Your task to perform on an android device: Open Chrome and go to the settings page Image 0: 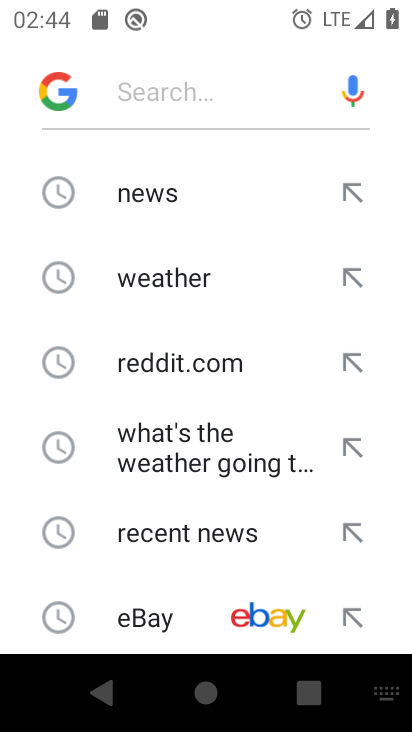
Step 0: press home button
Your task to perform on an android device: Open Chrome and go to the settings page Image 1: 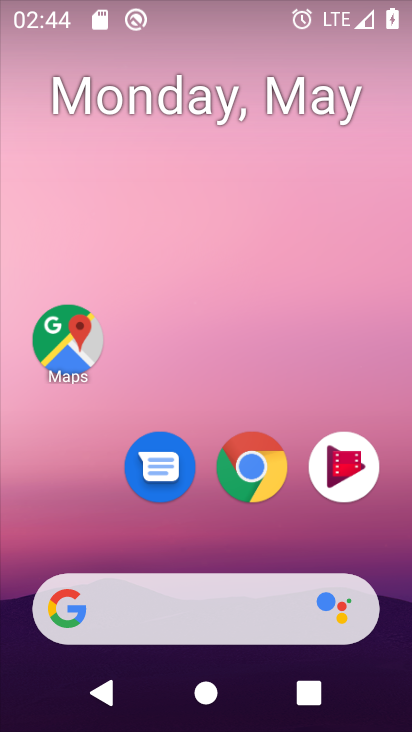
Step 1: drag from (217, 556) to (294, 142)
Your task to perform on an android device: Open Chrome and go to the settings page Image 2: 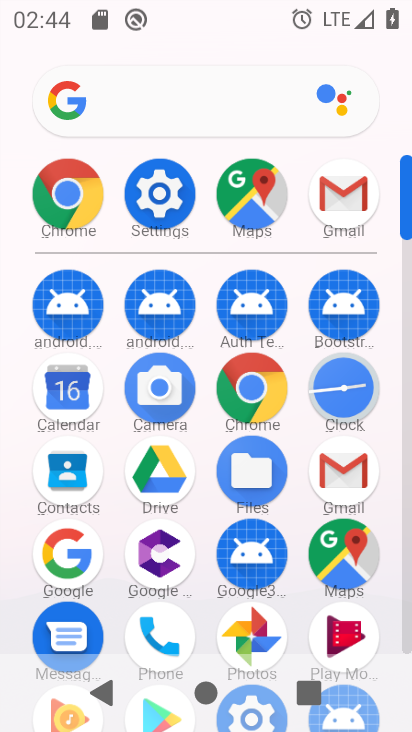
Step 2: click (68, 187)
Your task to perform on an android device: Open Chrome and go to the settings page Image 3: 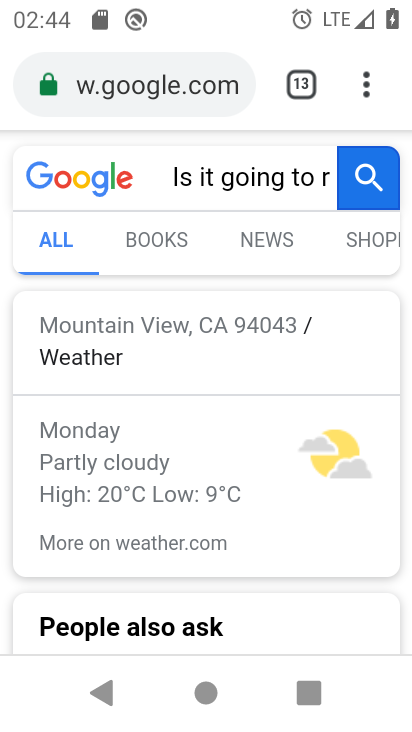
Step 3: click (361, 72)
Your task to perform on an android device: Open Chrome and go to the settings page Image 4: 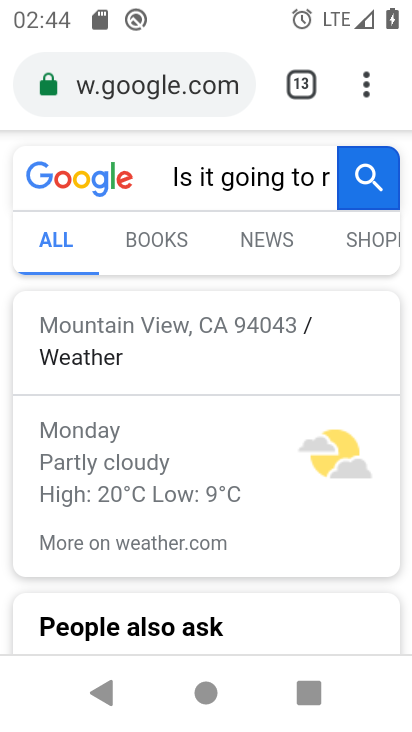
Step 4: click (348, 69)
Your task to perform on an android device: Open Chrome and go to the settings page Image 5: 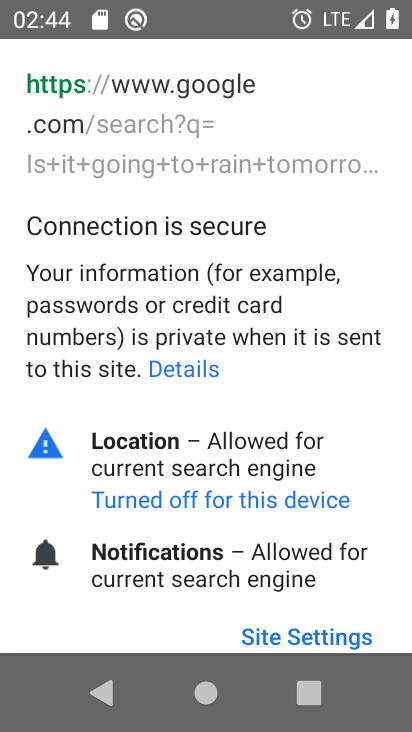
Step 5: press back button
Your task to perform on an android device: Open Chrome and go to the settings page Image 6: 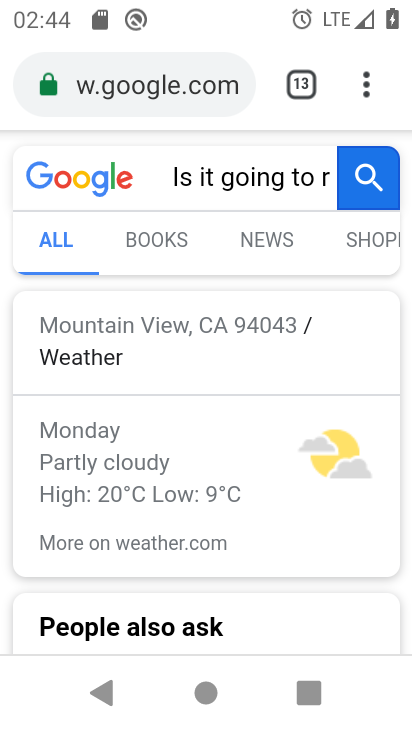
Step 6: click (401, 66)
Your task to perform on an android device: Open Chrome and go to the settings page Image 7: 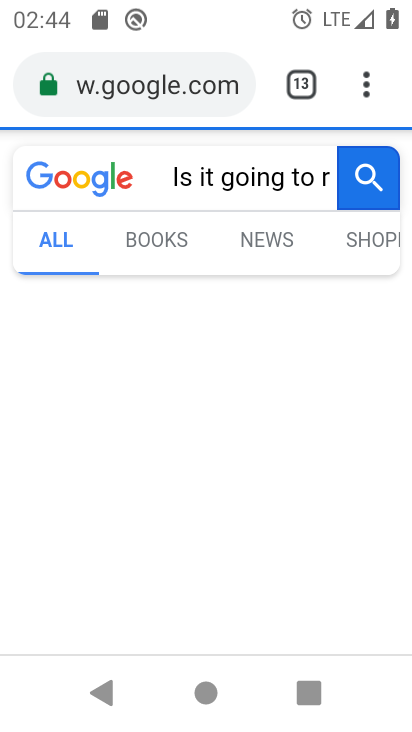
Step 7: click (394, 79)
Your task to perform on an android device: Open Chrome and go to the settings page Image 8: 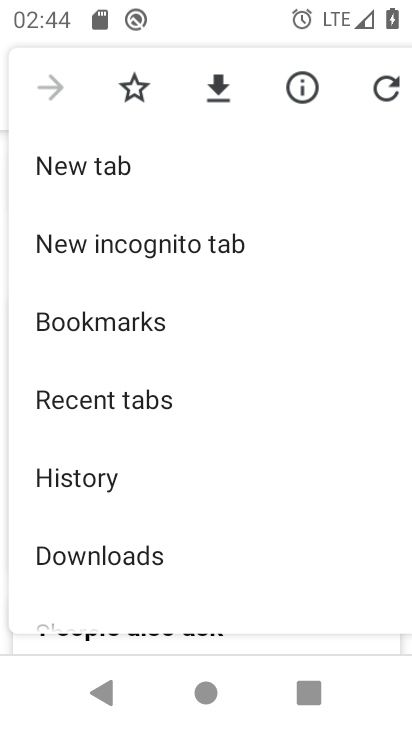
Step 8: drag from (194, 495) to (259, 246)
Your task to perform on an android device: Open Chrome and go to the settings page Image 9: 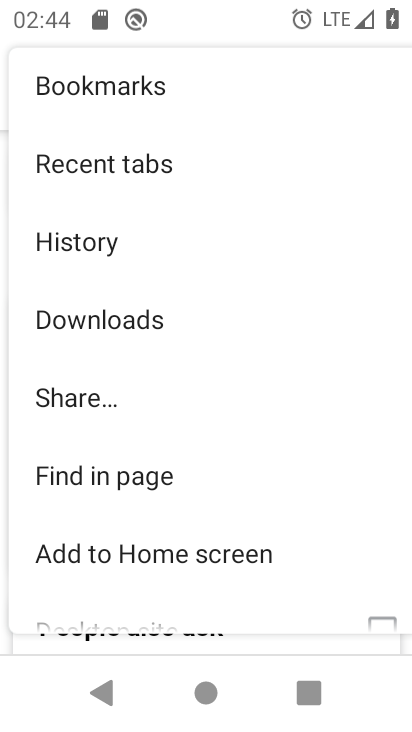
Step 9: drag from (181, 531) to (256, 202)
Your task to perform on an android device: Open Chrome and go to the settings page Image 10: 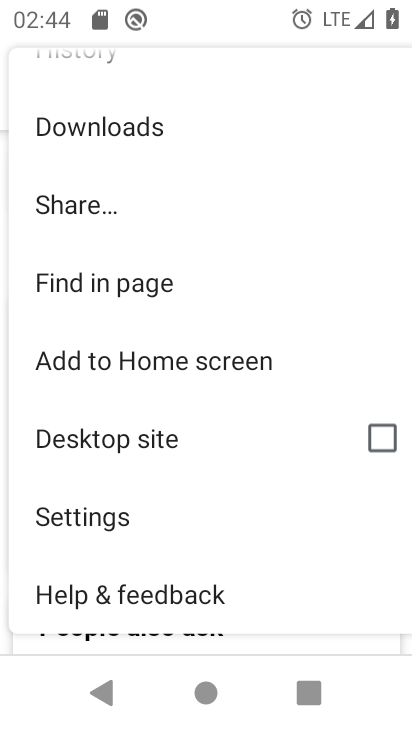
Step 10: click (114, 511)
Your task to perform on an android device: Open Chrome and go to the settings page Image 11: 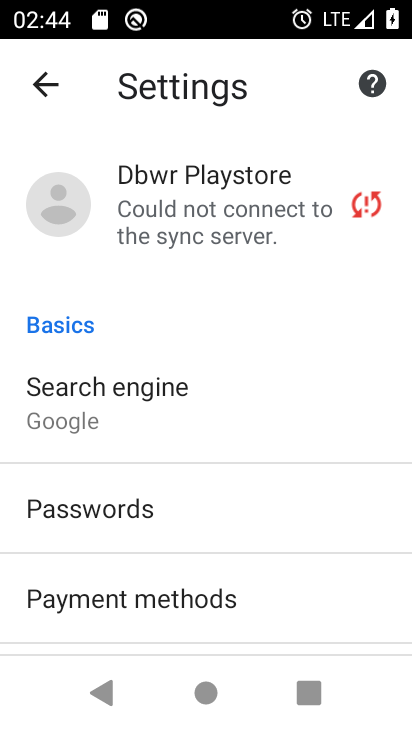
Step 11: task complete